Your task to perform on an android device: remove spam from my inbox in the gmail app Image 0: 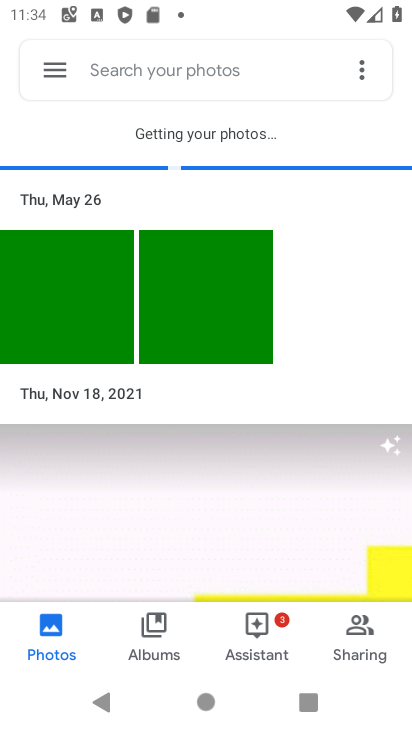
Step 0: press home button
Your task to perform on an android device: remove spam from my inbox in the gmail app Image 1: 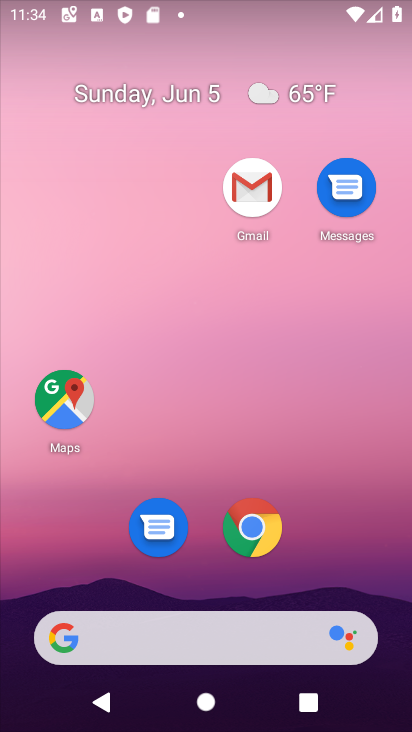
Step 1: click (245, 207)
Your task to perform on an android device: remove spam from my inbox in the gmail app Image 2: 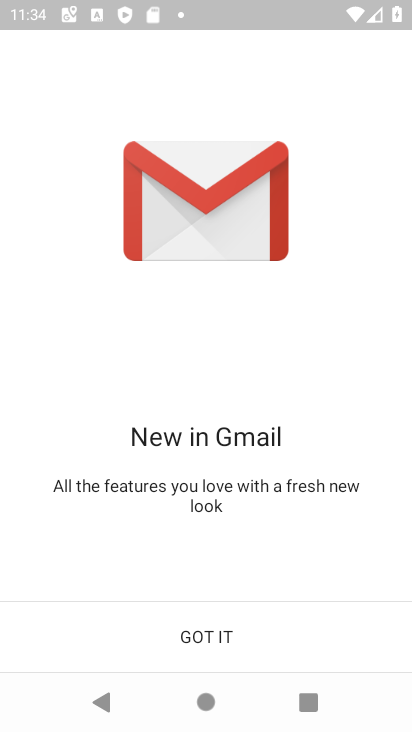
Step 2: click (227, 637)
Your task to perform on an android device: remove spam from my inbox in the gmail app Image 3: 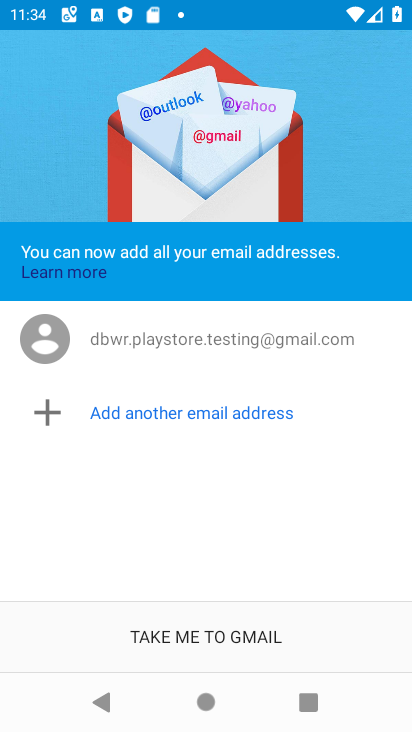
Step 3: click (227, 637)
Your task to perform on an android device: remove spam from my inbox in the gmail app Image 4: 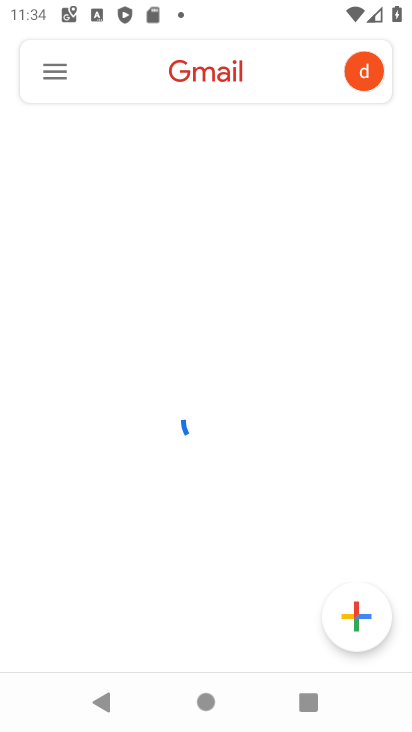
Step 4: click (227, 637)
Your task to perform on an android device: remove spam from my inbox in the gmail app Image 5: 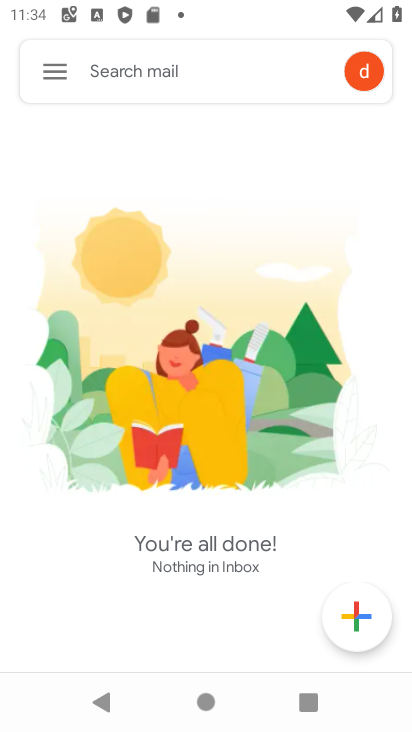
Step 5: click (59, 67)
Your task to perform on an android device: remove spam from my inbox in the gmail app Image 6: 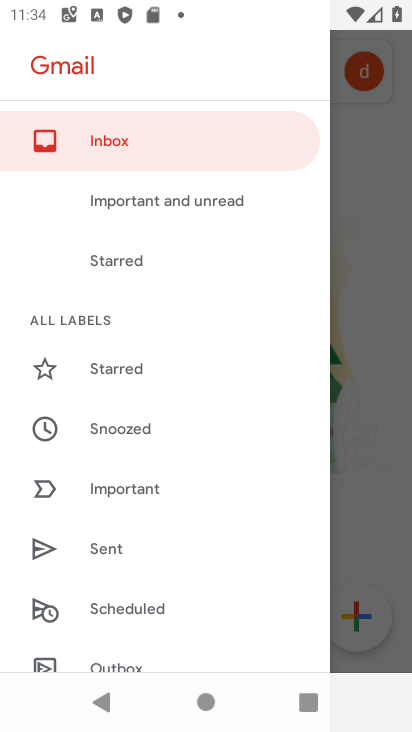
Step 6: drag from (269, 633) to (280, 467)
Your task to perform on an android device: remove spam from my inbox in the gmail app Image 7: 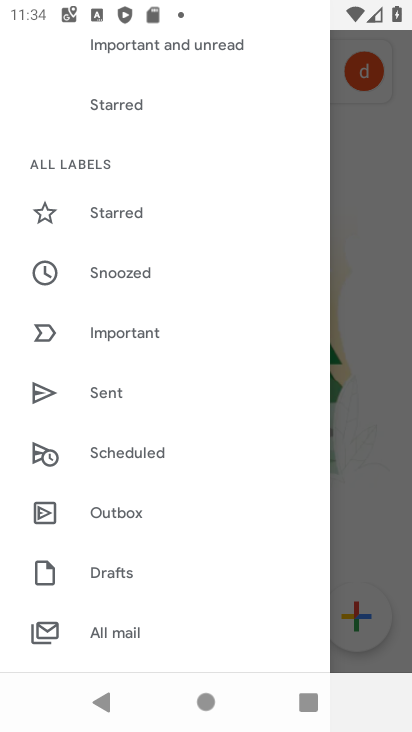
Step 7: drag from (228, 626) to (230, 542)
Your task to perform on an android device: remove spam from my inbox in the gmail app Image 8: 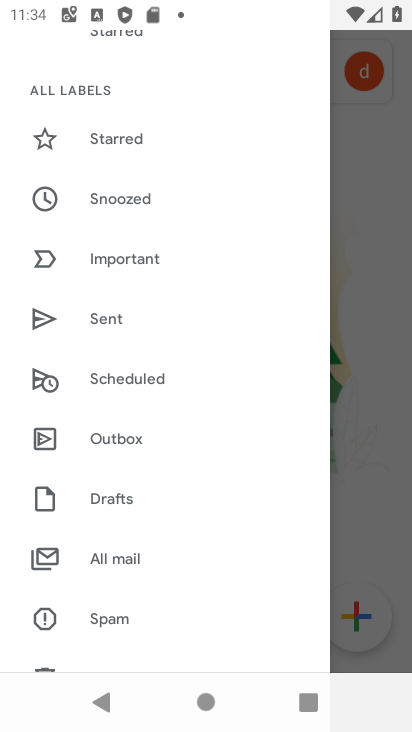
Step 8: click (110, 614)
Your task to perform on an android device: remove spam from my inbox in the gmail app Image 9: 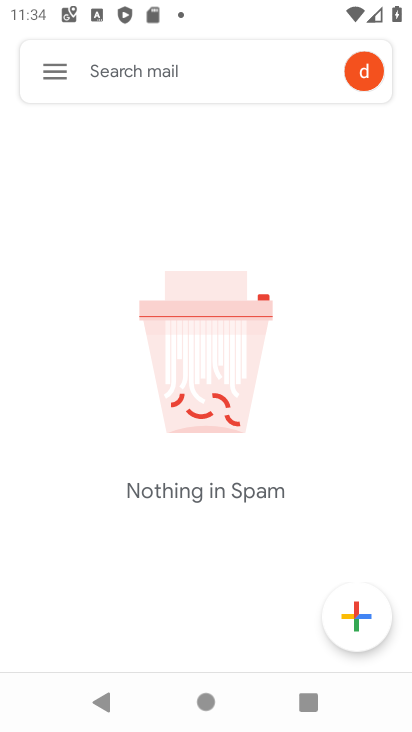
Step 9: task complete